Your task to perform on an android device: Search for vegetarian restaurants on Maps Image 0: 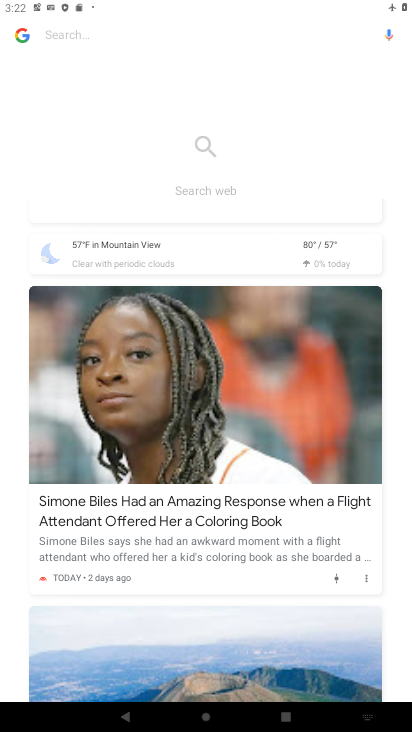
Step 0: press back button
Your task to perform on an android device: Search for vegetarian restaurants on Maps Image 1: 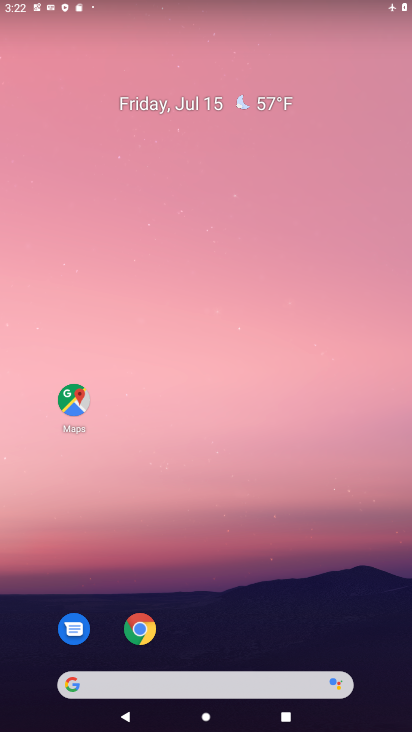
Step 1: drag from (254, 549) to (262, 274)
Your task to perform on an android device: Search for vegetarian restaurants on Maps Image 2: 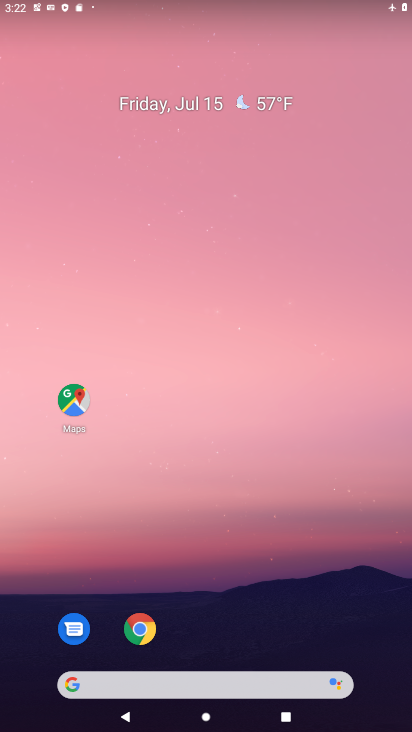
Step 2: drag from (249, 725) to (309, 206)
Your task to perform on an android device: Search for vegetarian restaurants on Maps Image 3: 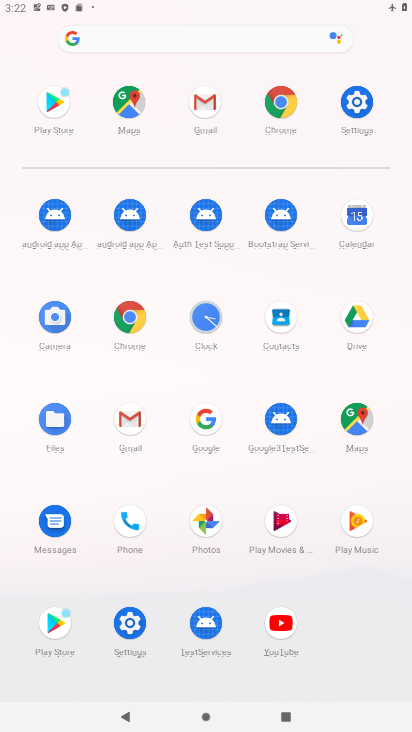
Step 3: click (348, 414)
Your task to perform on an android device: Search for vegetarian restaurants on Maps Image 4: 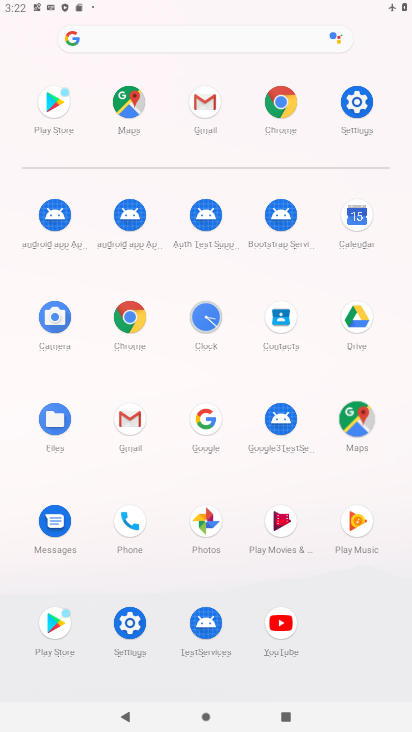
Step 4: click (349, 412)
Your task to perform on an android device: Search for vegetarian restaurants on Maps Image 5: 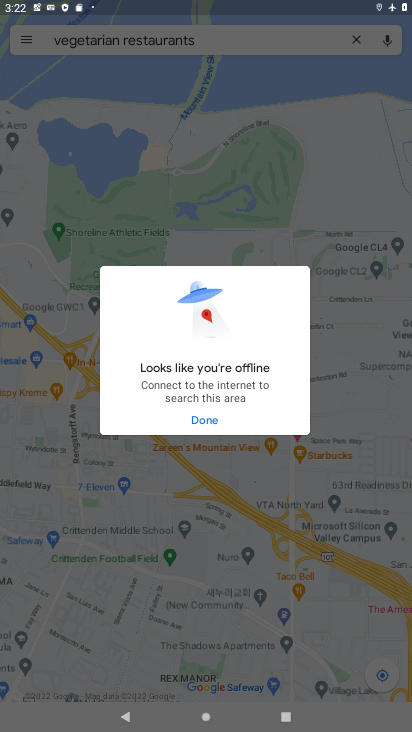
Step 5: task complete